Your task to perform on an android device: What's on my calendar today? Image 0: 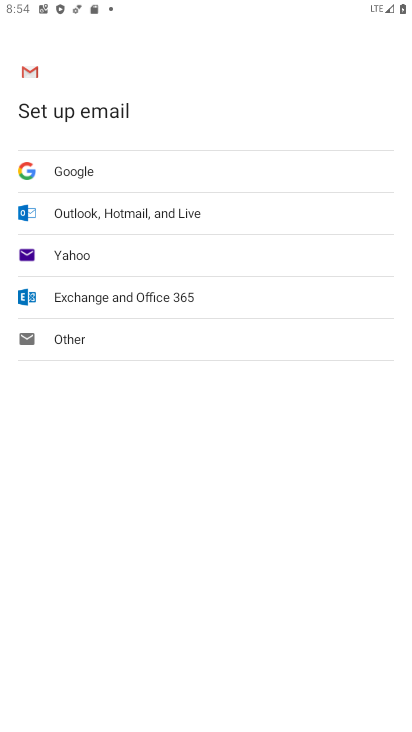
Step 0: press home button
Your task to perform on an android device: What's on my calendar today? Image 1: 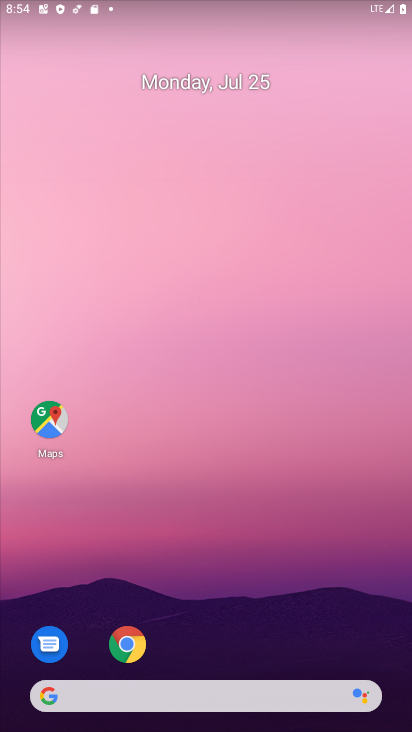
Step 1: drag from (286, 572) to (240, 123)
Your task to perform on an android device: What's on my calendar today? Image 2: 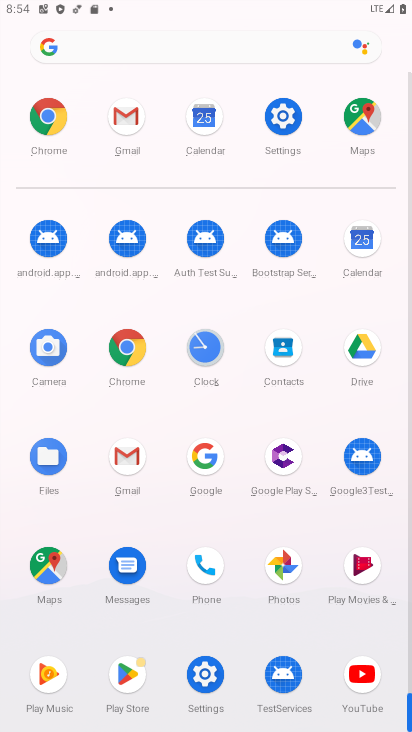
Step 2: click (362, 242)
Your task to perform on an android device: What's on my calendar today? Image 3: 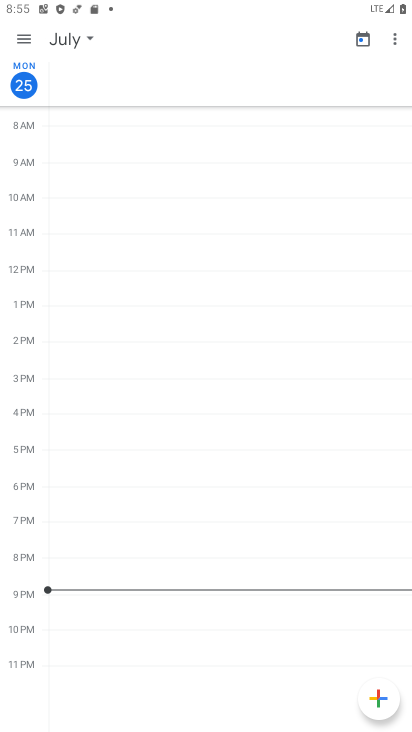
Step 3: task complete